Your task to perform on an android device: Open Yahoo.com Image 0: 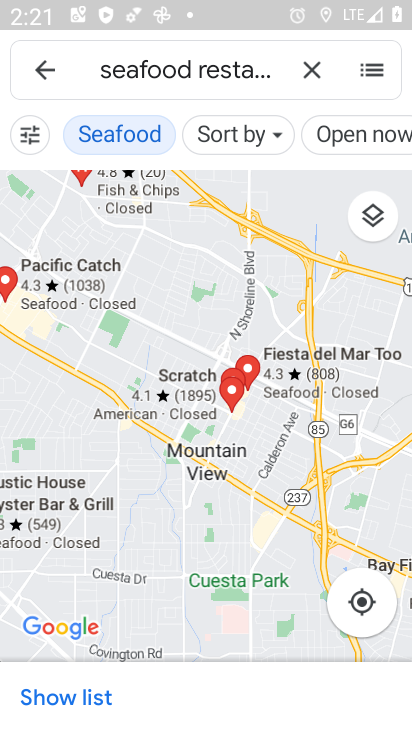
Step 0: press home button
Your task to perform on an android device: Open Yahoo.com Image 1: 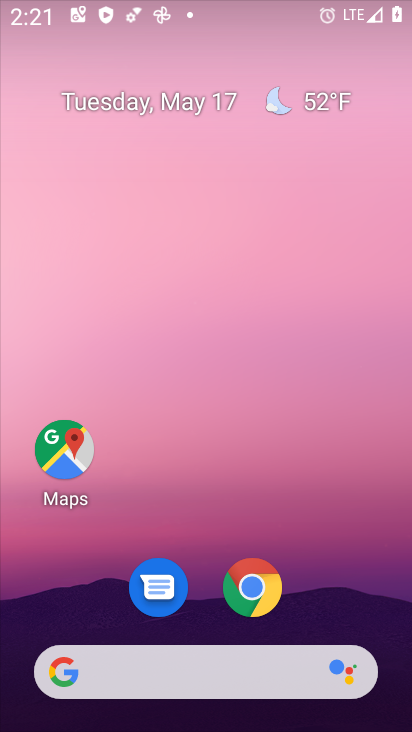
Step 1: click (352, 574)
Your task to perform on an android device: Open Yahoo.com Image 2: 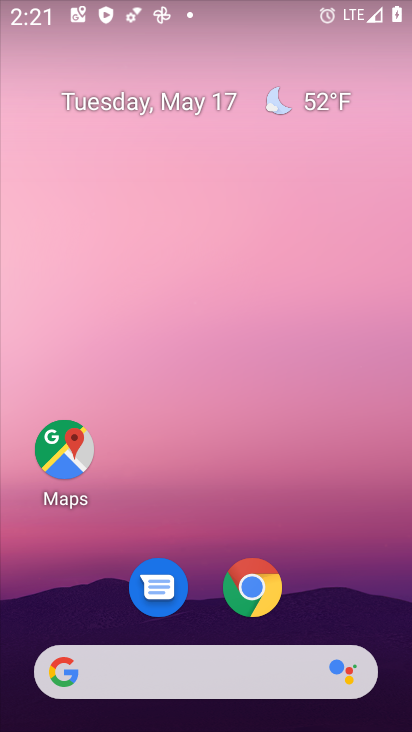
Step 2: click (255, 611)
Your task to perform on an android device: Open Yahoo.com Image 3: 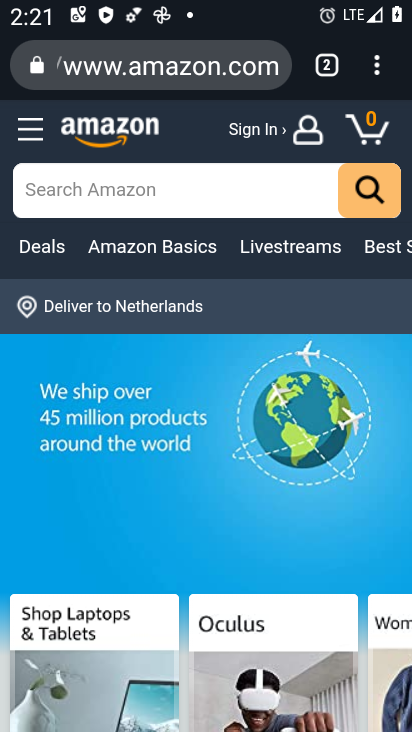
Step 3: click (325, 69)
Your task to perform on an android device: Open Yahoo.com Image 4: 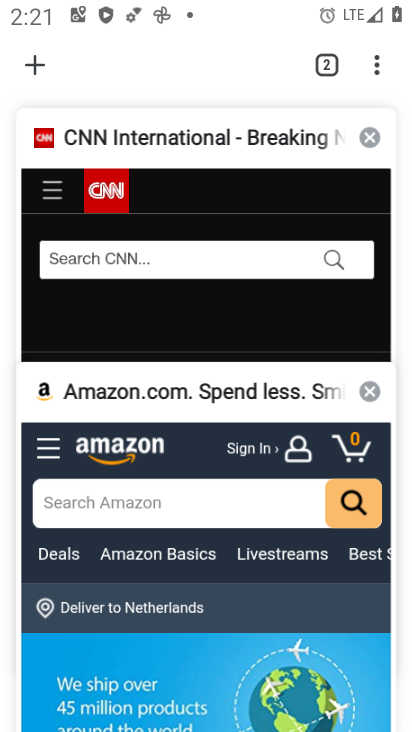
Step 4: click (34, 71)
Your task to perform on an android device: Open Yahoo.com Image 5: 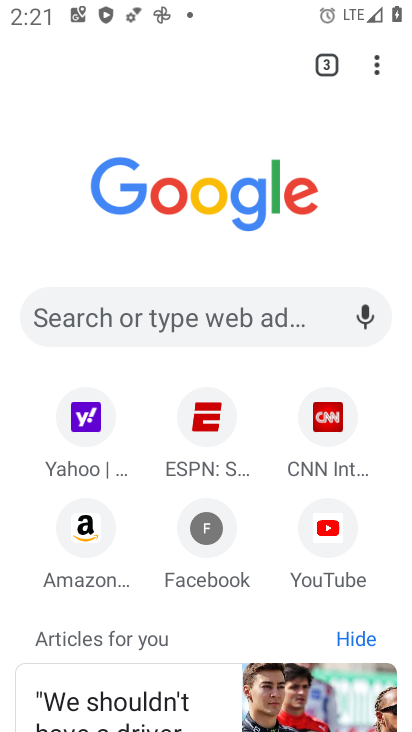
Step 5: click (60, 449)
Your task to perform on an android device: Open Yahoo.com Image 6: 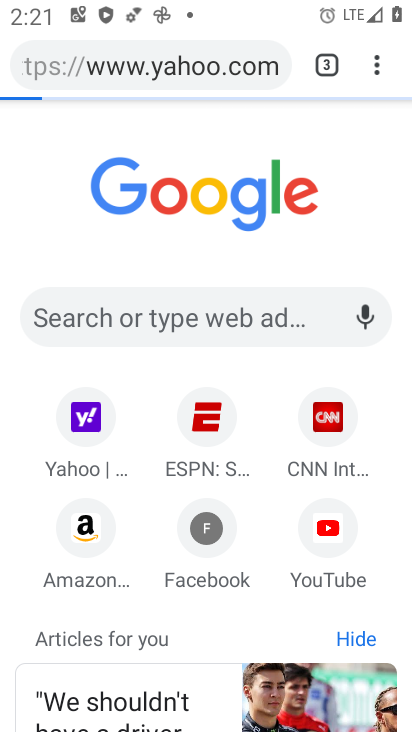
Step 6: task complete